Your task to perform on an android device: Go to notification settings Image 0: 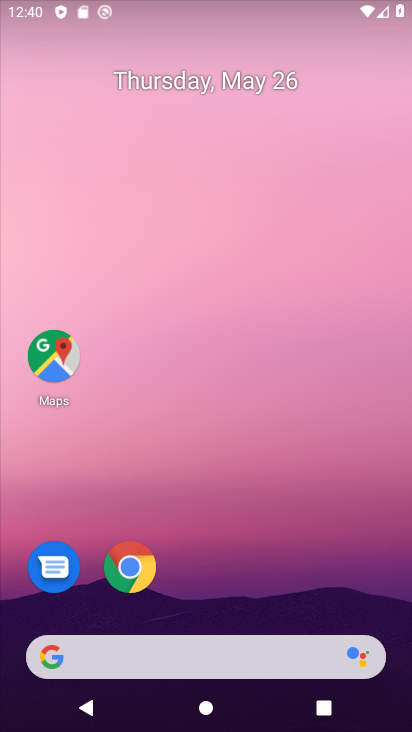
Step 0: drag from (207, 584) to (225, 64)
Your task to perform on an android device: Go to notification settings Image 1: 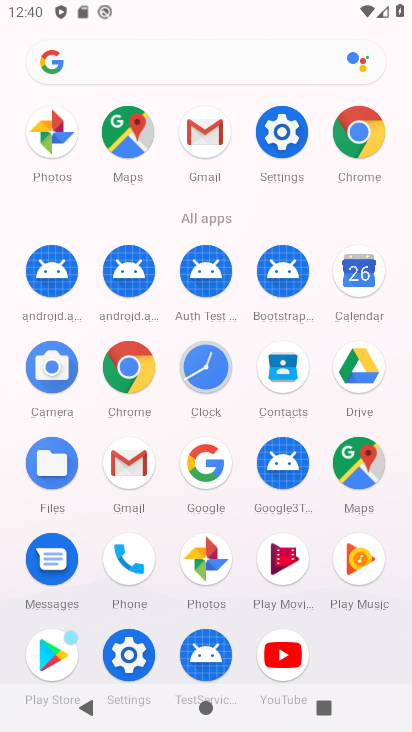
Step 1: click (277, 127)
Your task to perform on an android device: Go to notification settings Image 2: 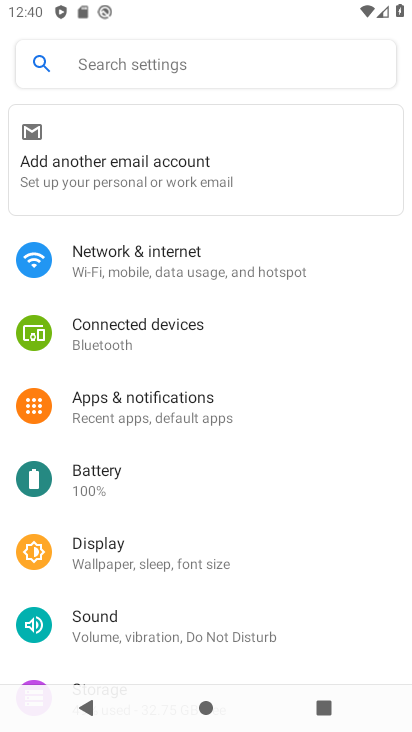
Step 2: click (148, 396)
Your task to perform on an android device: Go to notification settings Image 3: 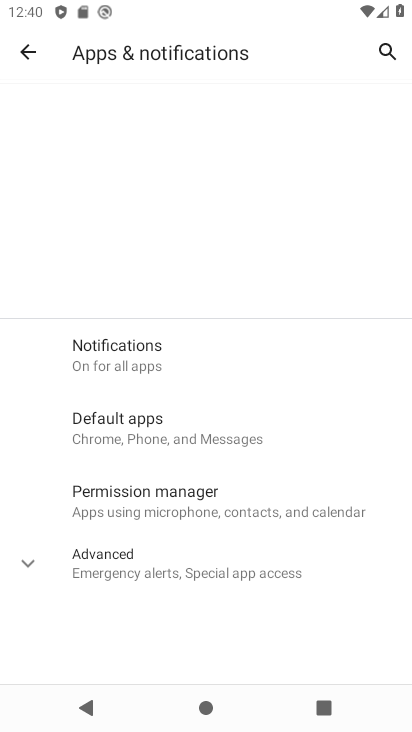
Step 3: click (122, 348)
Your task to perform on an android device: Go to notification settings Image 4: 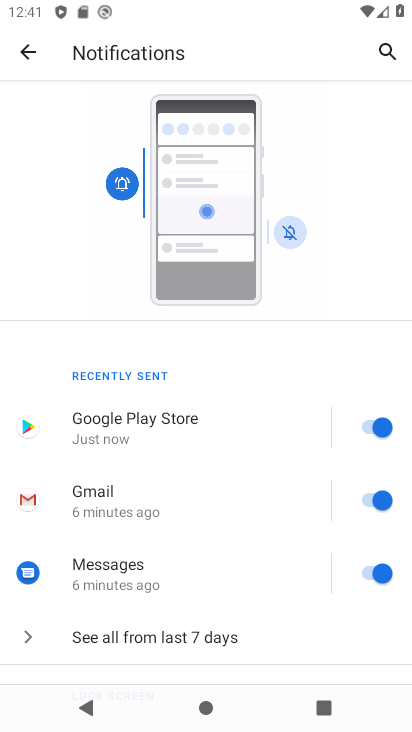
Step 4: task complete